Your task to perform on an android device: Open Youtube and go to the subscriptions tab Image 0: 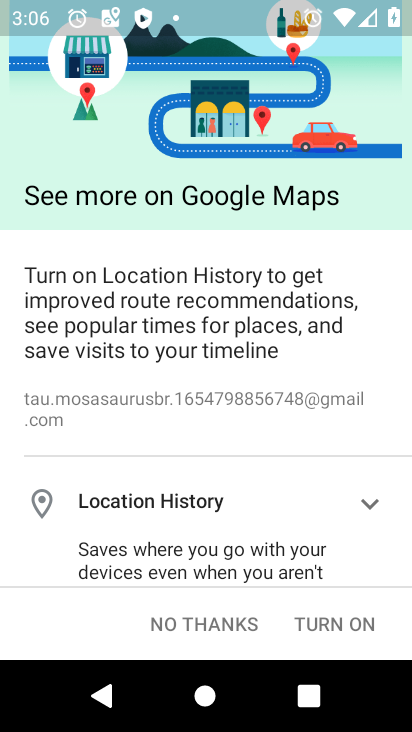
Step 0: press home button
Your task to perform on an android device: Open Youtube and go to the subscriptions tab Image 1: 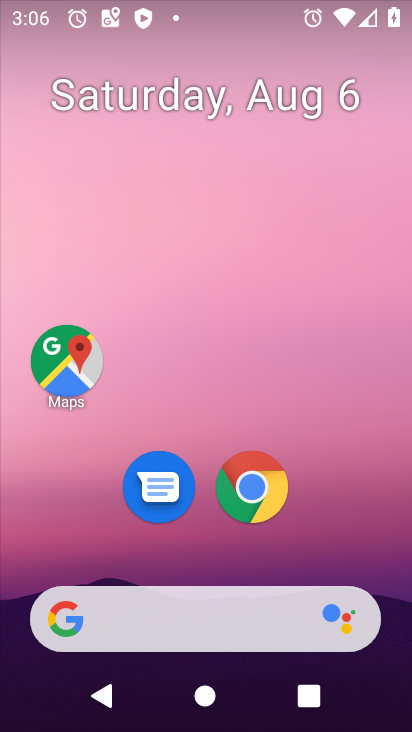
Step 1: drag from (176, 605) to (274, 31)
Your task to perform on an android device: Open Youtube and go to the subscriptions tab Image 2: 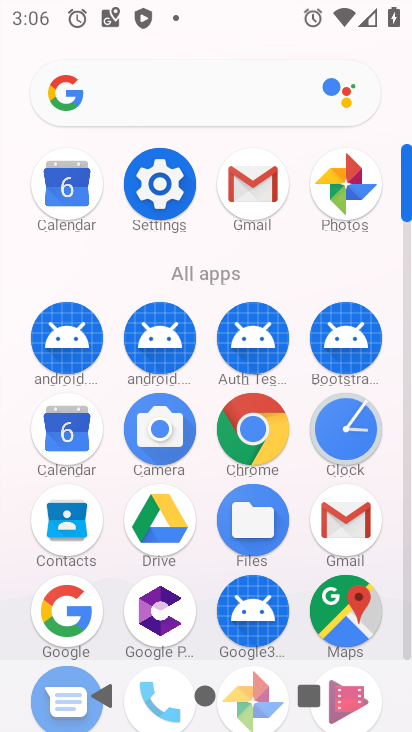
Step 2: drag from (251, 492) to (141, 6)
Your task to perform on an android device: Open Youtube and go to the subscriptions tab Image 3: 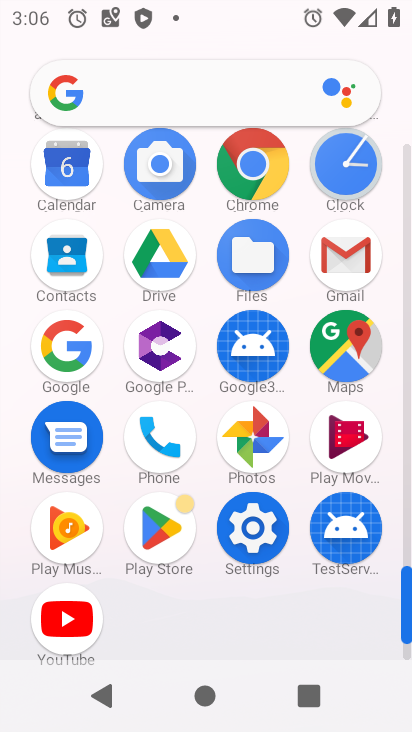
Step 3: drag from (121, 550) to (174, 132)
Your task to perform on an android device: Open Youtube and go to the subscriptions tab Image 4: 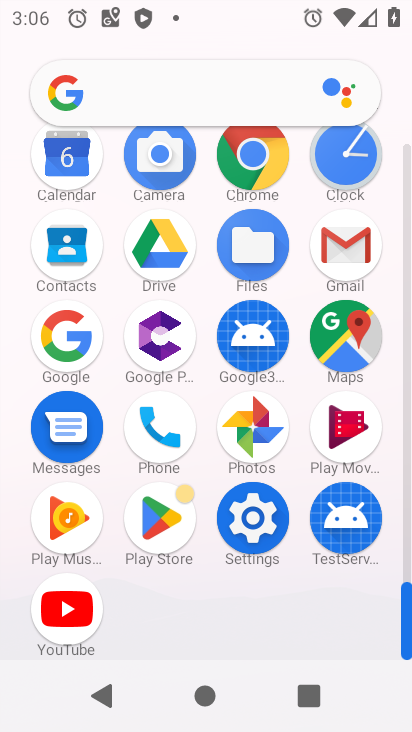
Step 4: click (74, 619)
Your task to perform on an android device: Open Youtube and go to the subscriptions tab Image 5: 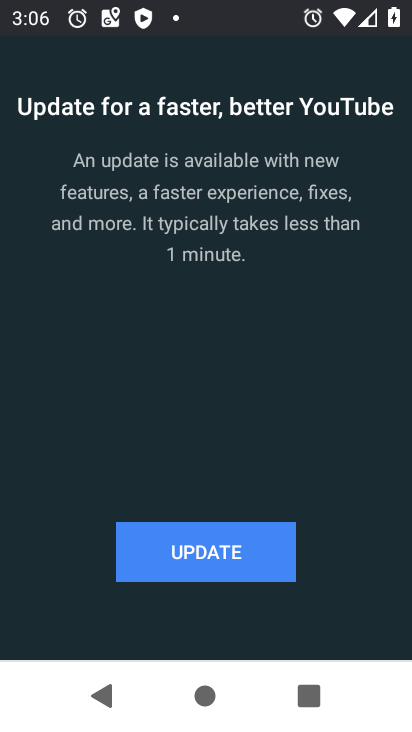
Step 5: click (218, 570)
Your task to perform on an android device: Open Youtube and go to the subscriptions tab Image 6: 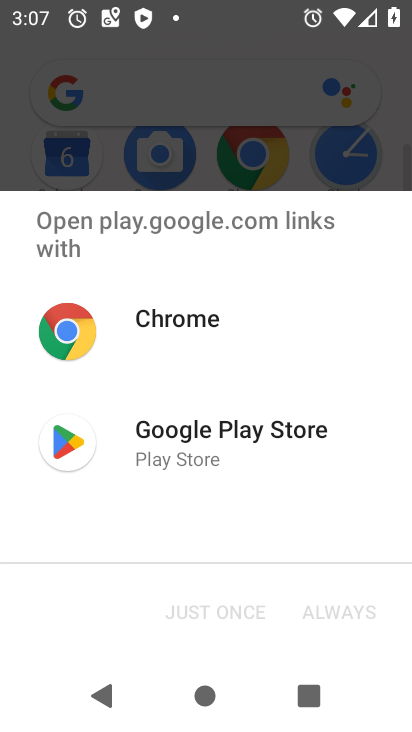
Step 6: click (289, 426)
Your task to perform on an android device: Open Youtube and go to the subscriptions tab Image 7: 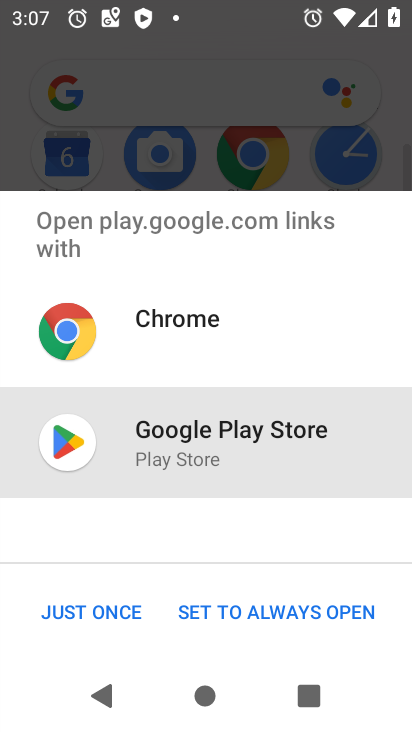
Step 7: click (98, 614)
Your task to perform on an android device: Open Youtube and go to the subscriptions tab Image 8: 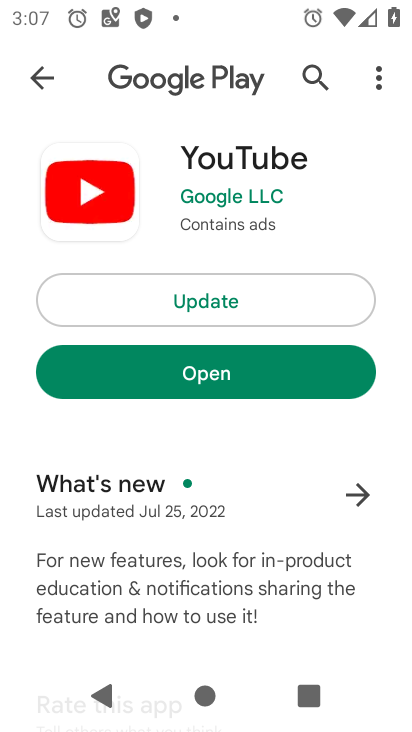
Step 8: click (216, 298)
Your task to perform on an android device: Open Youtube and go to the subscriptions tab Image 9: 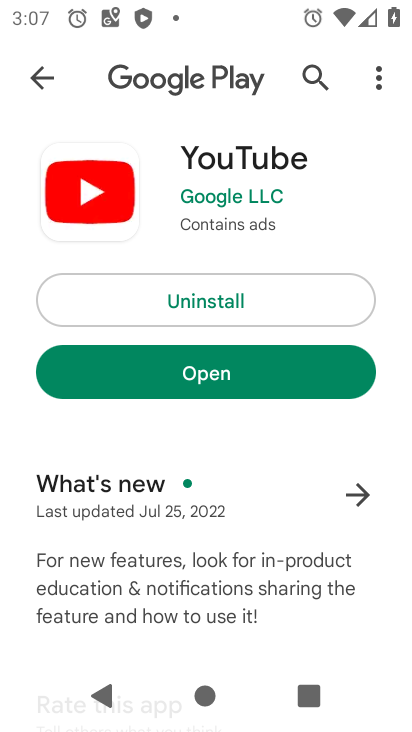
Step 9: click (304, 378)
Your task to perform on an android device: Open Youtube and go to the subscriptions tab Image 10: 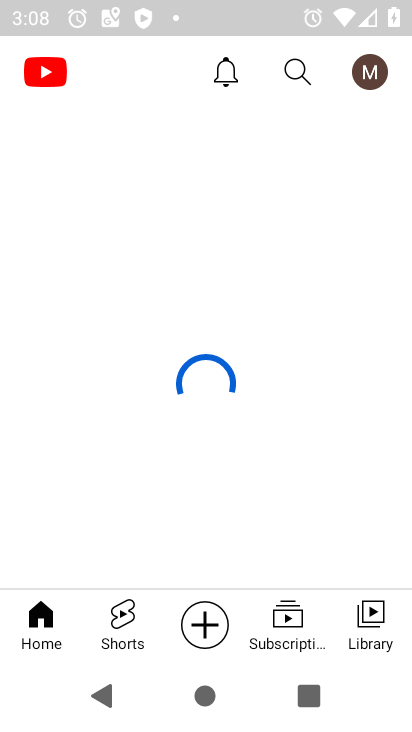
Step 10: click (249, 626)
Your task to perform on an android device: Open Youtube and go to the subscriptions tab Image 11: 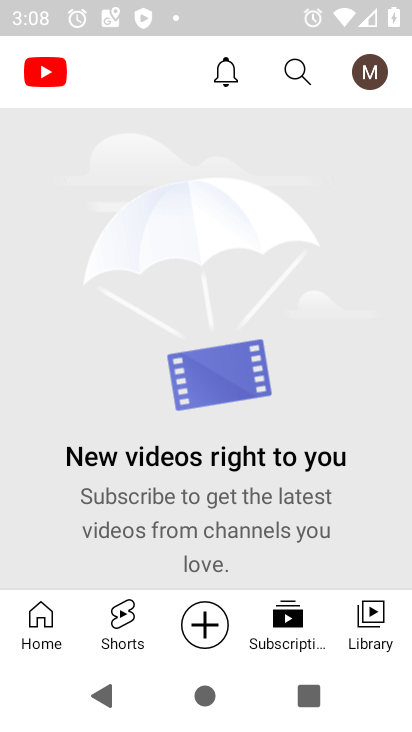
Step 11: task complete